Your task to perform on an android device: Open the calendar app, open the side menu, and click the "Day" option Image 0: 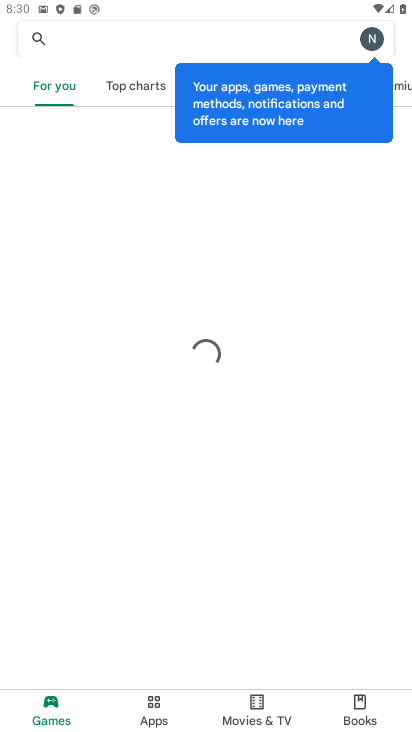
Step 0: press home button
Your task to perform on an android device: Open the calendar app, open the side menu, and click the "Day" option Image 1: 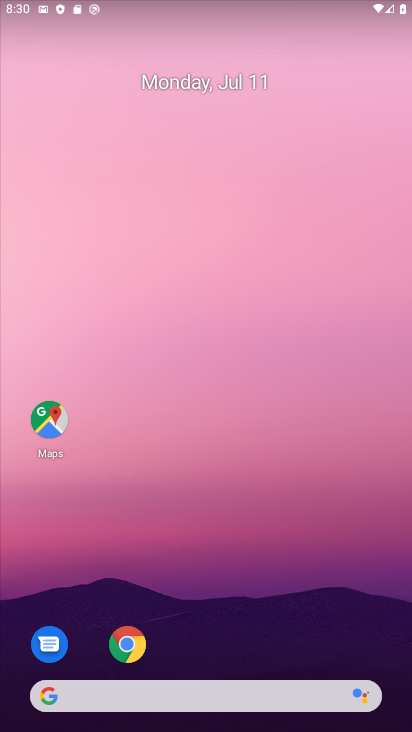
Step 1: drag from (191, 678) to (232, 333)
Your task to perform on an android device: Open the calendar app, open the side menu, and click the "Day" option Image 2: 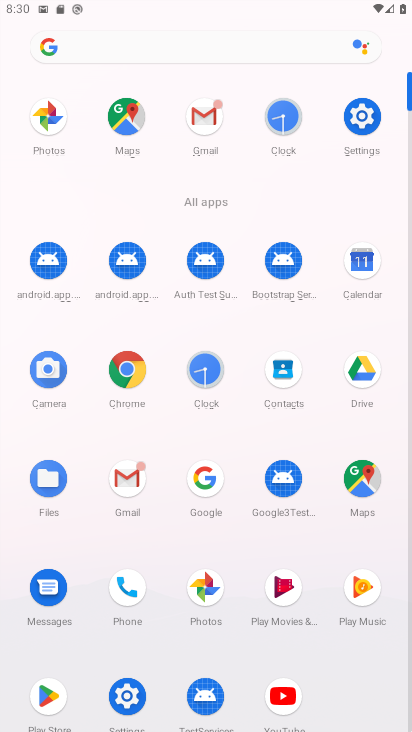
Step 2: click (373, 255)
Your task to perform on an android device: Open the calendar app, open the side menu, and click the "Day" option Image 3: 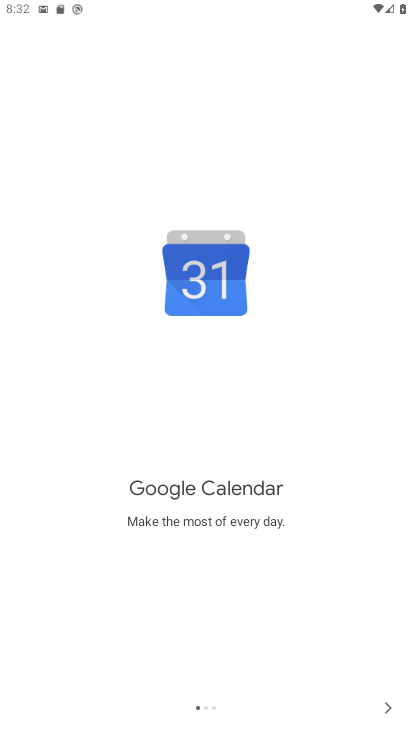
Step 3: click (384, 711)
Your task to perform on an android device: Open the calendar app, open the side menu, and click the "Day" option Image 4: 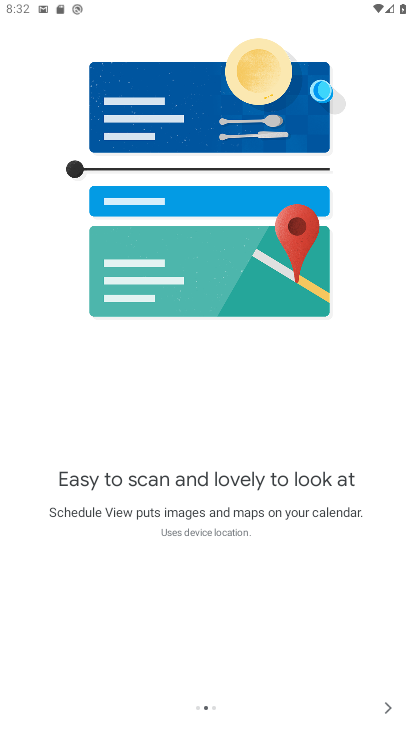
Step 4: click (384, 711)
Your task to perform on an android device: Open the calendar app, open the side menu, and click the "Day" option Image 5: 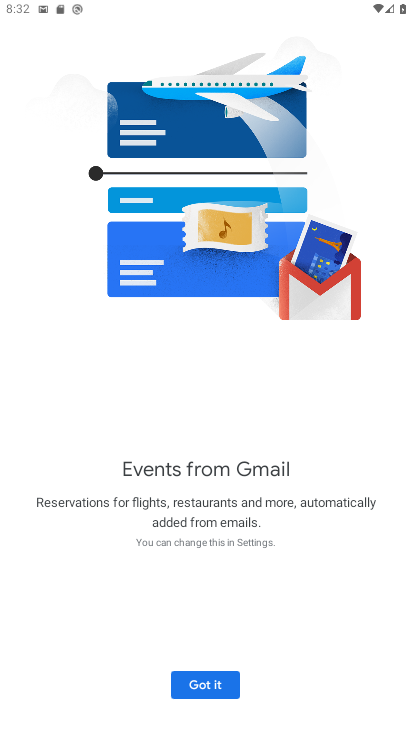
Step 5: click (186, 687)
Your task to perform on an android device: Open the calendar app, open the side menu, and click the "Day" option Image 6: 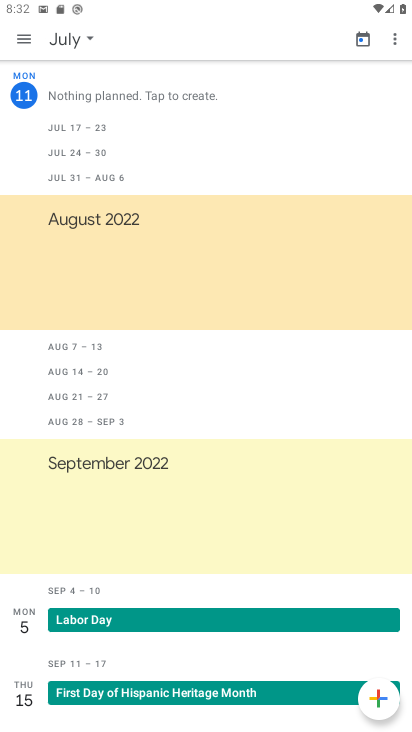
Step 6: click (24, 35)
Your task to perform on an android device: Open the calendar app, open the side menu, and click the "Day" option Image 7: 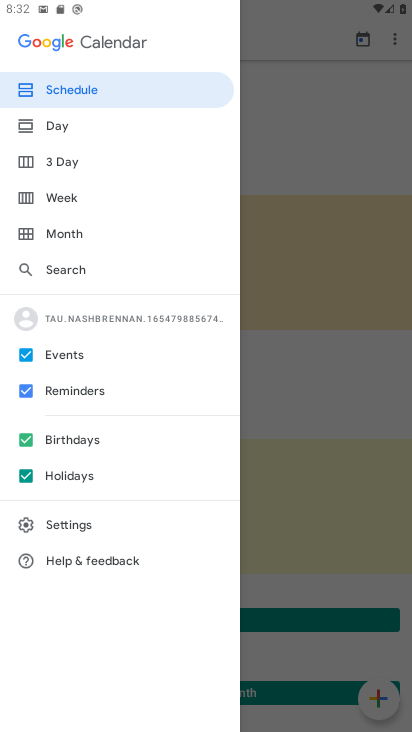
Step 7: click (53, 131)
Your task to perform on an android device: Open the calendar app, open the side menu, and click the "Day" option Image 8: 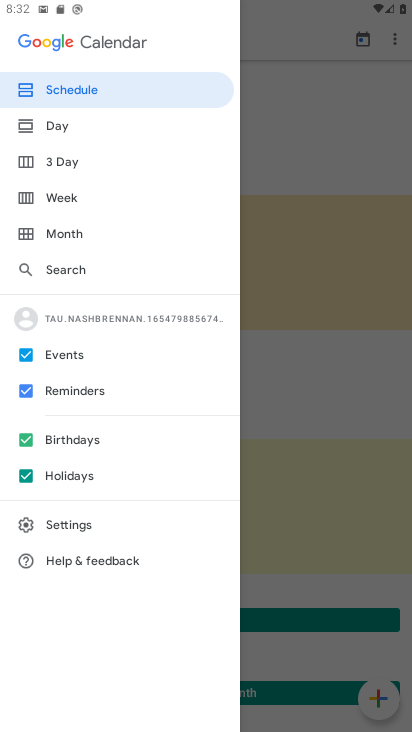
Step 8: click (58, 122)
Your task to perform on an android device: Open the calendar app, open the side menu, and click the "Day" option Image 9: 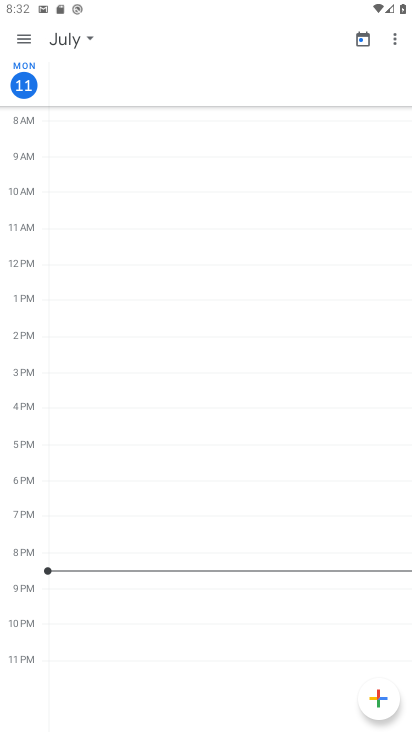
Step 9: task complete